Your task to perform on an android device: toggle data saver in the chrome app Image 0: 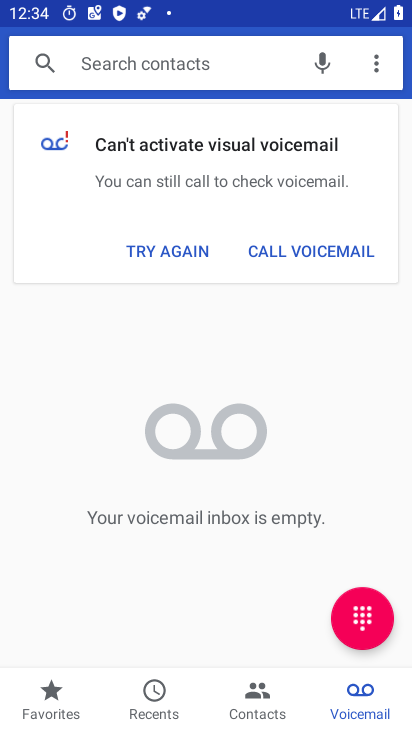
Step 0: press home button
Your task to perform on an android device: toggle data saver in the chrome app Image 1: 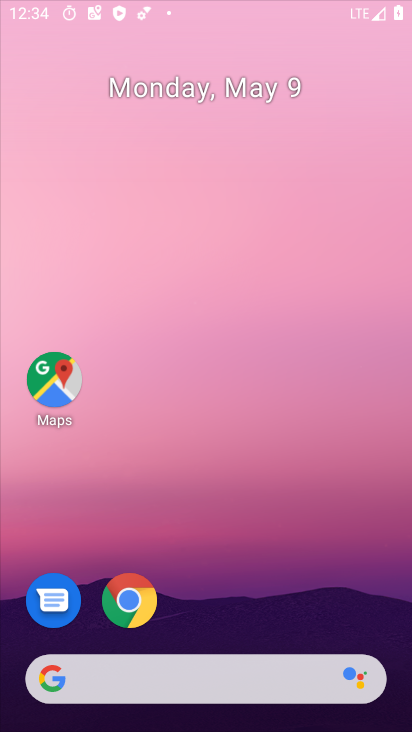
Step 1: drag from (235, 555) to (233, 227)
Your task to perform on an android device: toggle data saver in the chrome app Image 2: 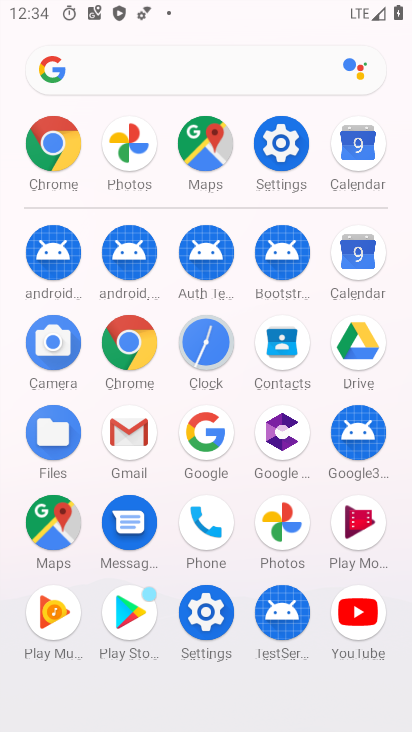
Step 2: click (127, 366)
Your task to perform on an android device: toggle data saver in the chrome app Image 3: 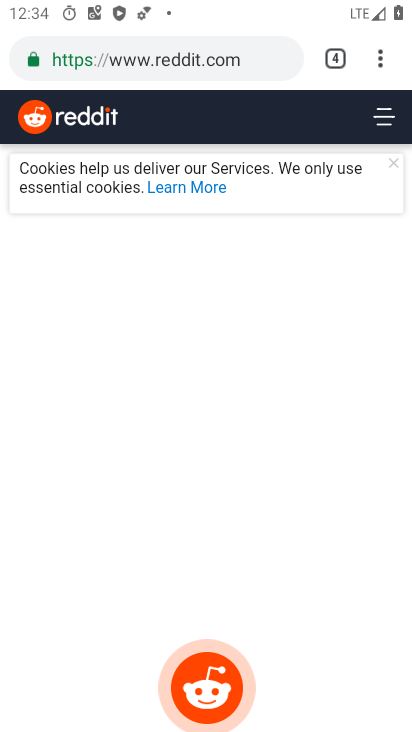
Step 3: click (384, 65)
Your task to perform on an android device: toggle data saver in the chrome app Image 4: 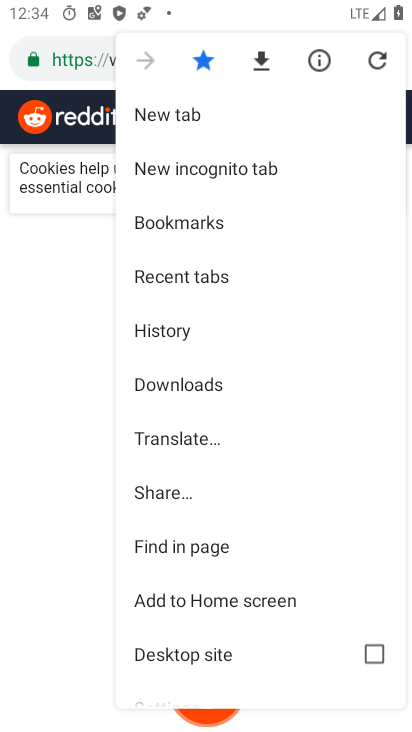
Step 4: drag from (211, 635) to (212, 374)
Your task to perform on an android device: toggle data saver in the chrome app Image 5: 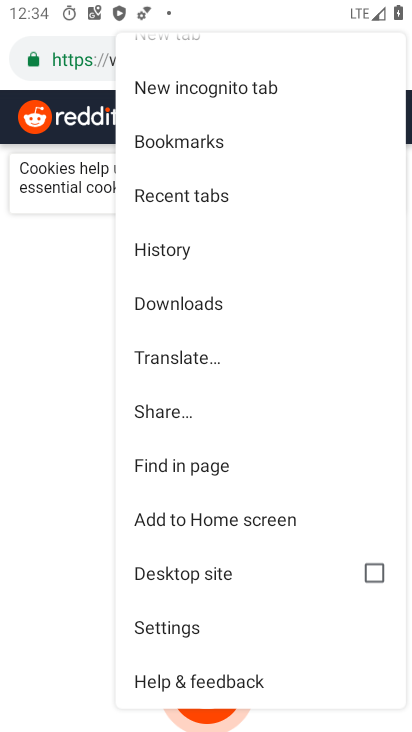
Step 5: click (195, 631)
Your task to perform on an android device: toggle data saver in the chrome app Image 6: 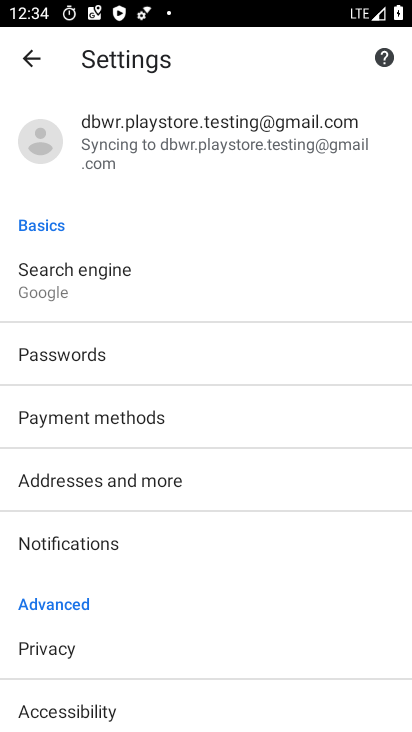
Step 6: drag from (170, 676) to (197, 368)
Your task to perform on an android device: toggle data saver in the chrome app Image 7: 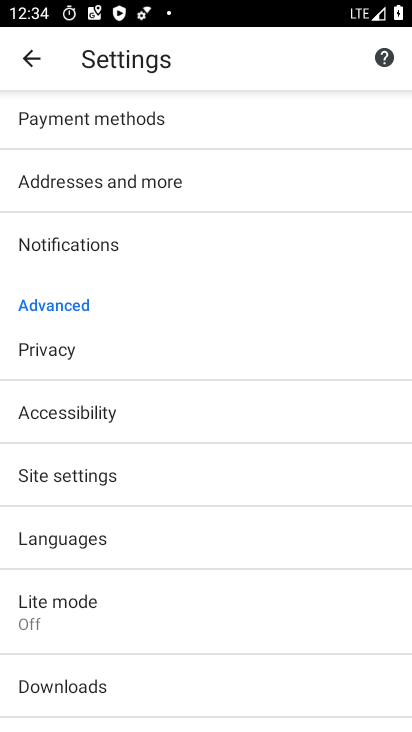
Step 7: click (139, 612)
Your task to perform on an android device: toggle data saver in the chrome app Image 8: 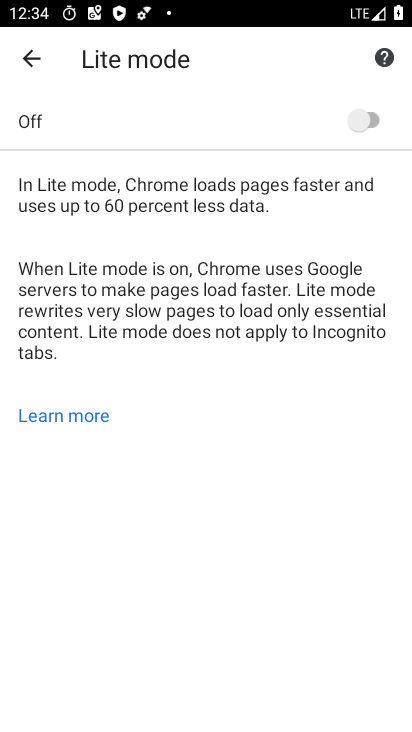
Step 8: click (353, 112)
Your task to perform on an android device: toggle data saver in the chrome app Image 9: 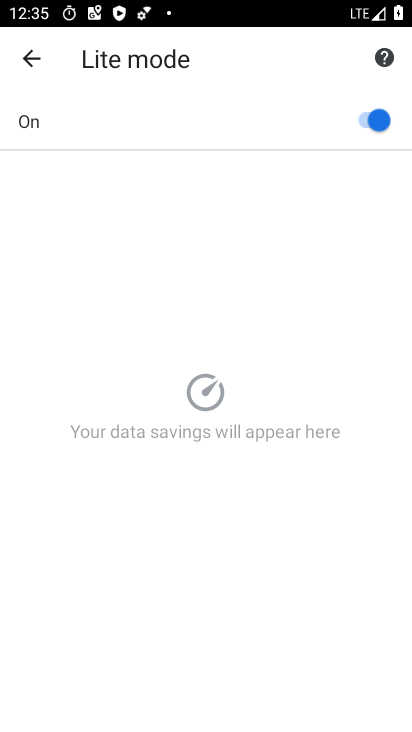
Step 9: task complete